Your task to perform on an android device: Search for Italian restaurants on Maps Image 0: 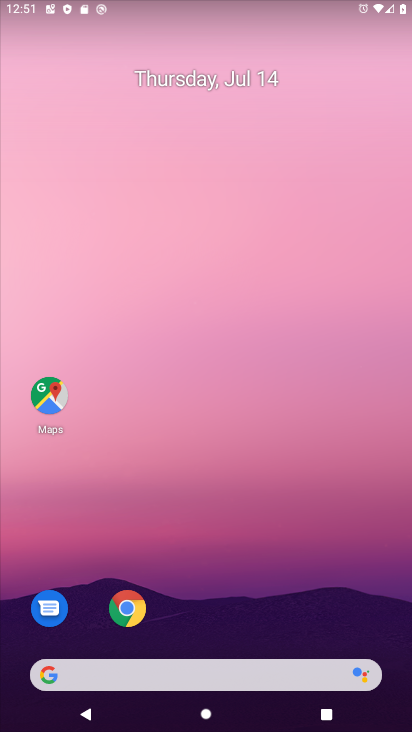
Step 0: click (49, 400)
Your task to perform on an android device: Search for Italian restaurants on Maps Image 1: 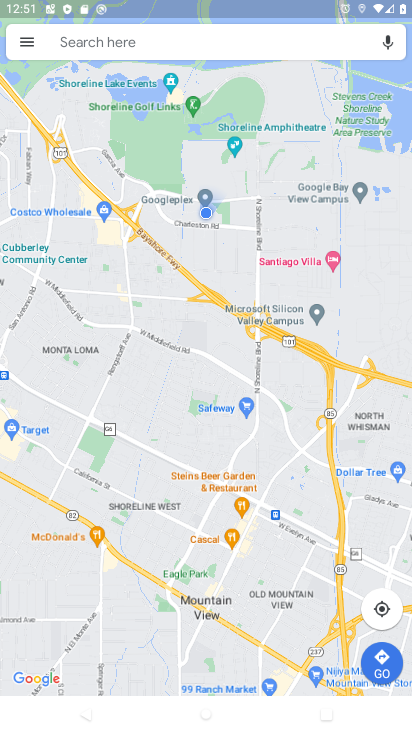
Step 1: click (199, 47)
Your task to perform on an android device: Search for Italian restaurants on Maps Image 2: 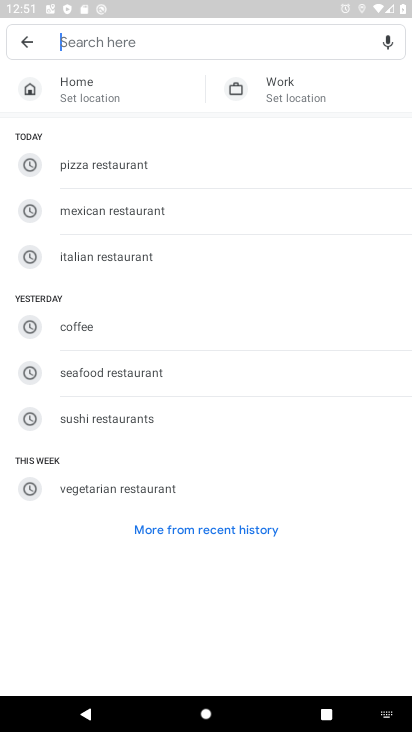
Step 2: type "Italian restaurants"
Your task to perform on an android device: Search for Italian restaurants on Maps Image 3: 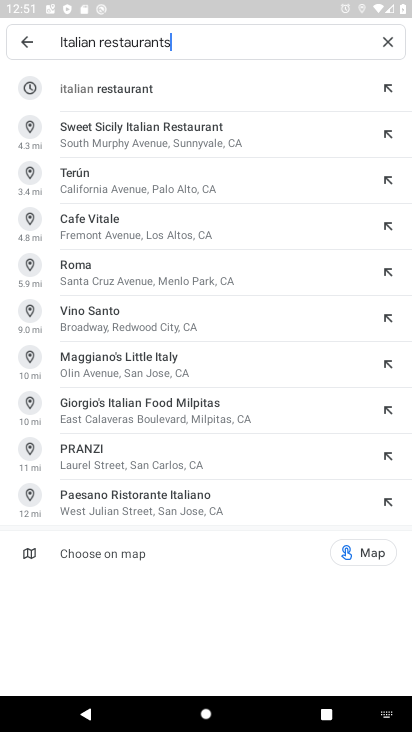
Step 3: click (132, 95)
Your task to perform on an android device: Search for Italian restaurants on Maps Image 4: 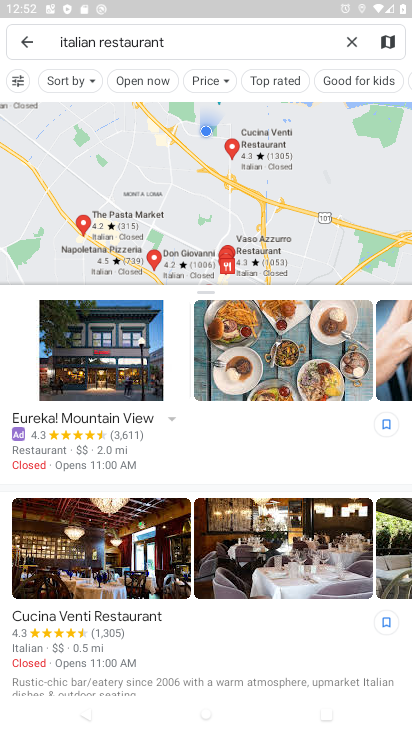
Step 4: task complete